Your task to perform on an android device: find photos in the google photos app Image 0: 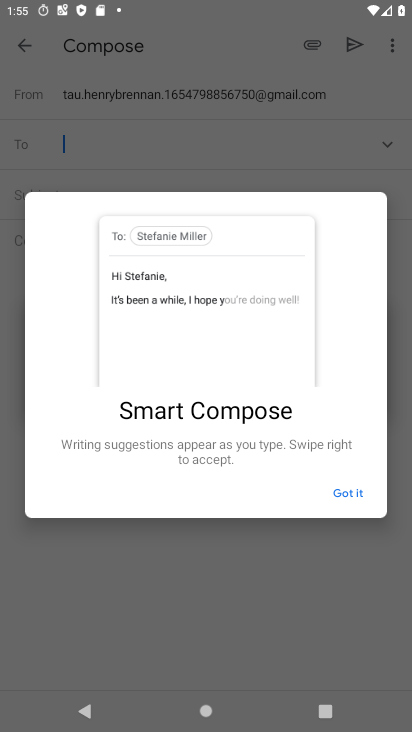
Step 0: click (346, 502)
Your task to perform on an android device: find photos in the google photos app Image 1: 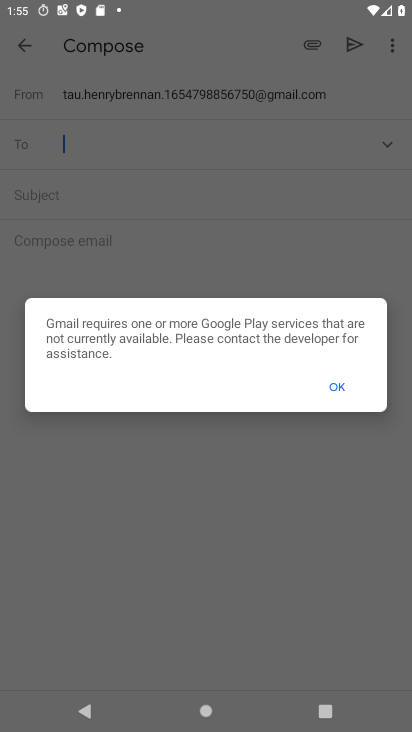
Step 1: press home button
Your task to perform on an android device: find photos in the google photos app Image 2: 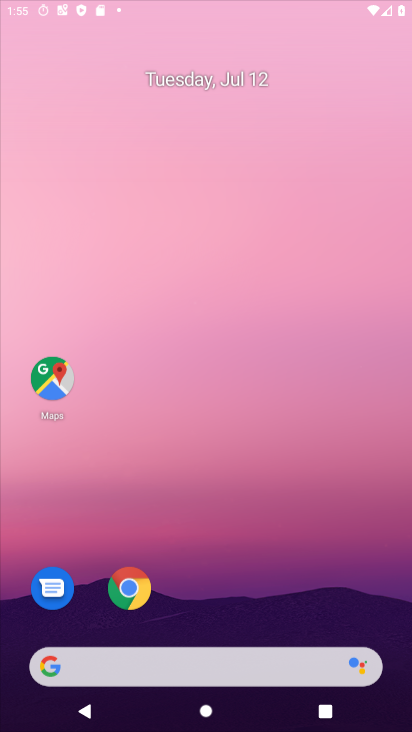
Step 2: drag from (192, 636) to (283, 5)
Your task to perform on an android device: find photos in the google photos app Image 3: 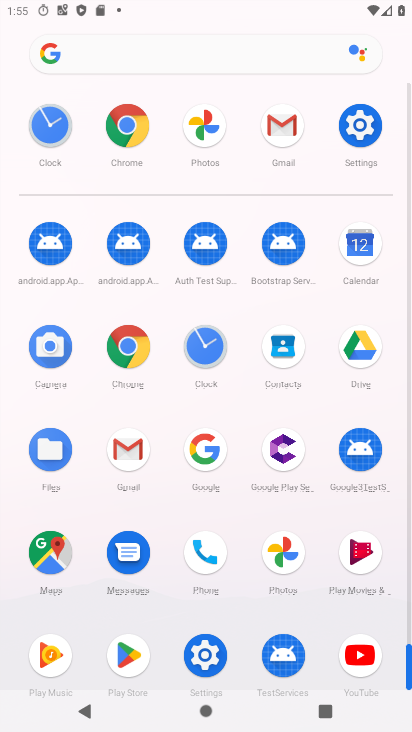
Step 3: click (278, 558)
Your task to perform on an android device: find photos in the google photos app Image 4: 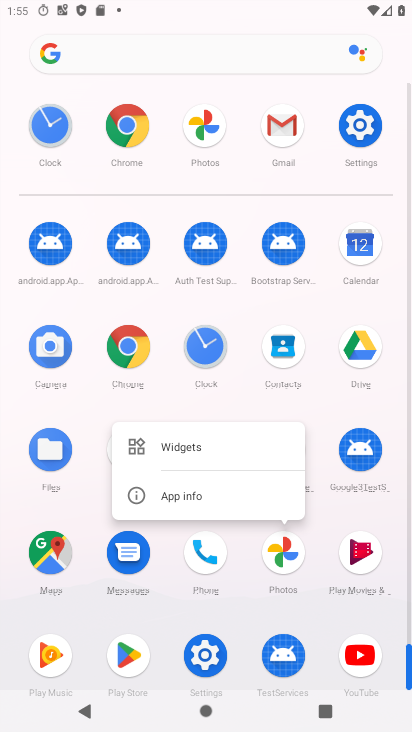
Step 4: click (181, 487)
Your task to perform on an android device: find photos in the google photos app Image 5: 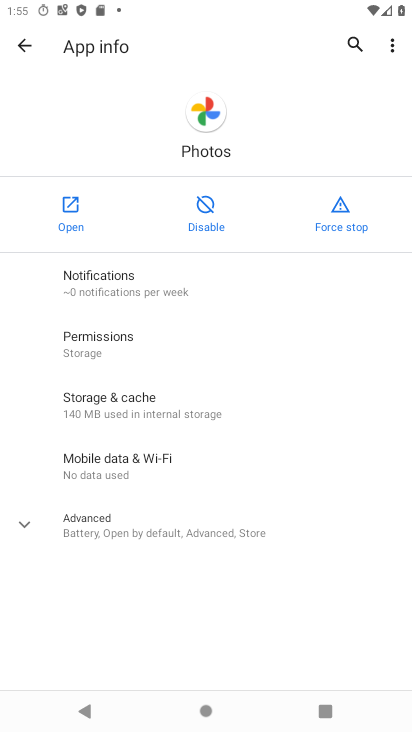
Step 5: click (67, 227)
Your task to perform on an android device: find photos in the google photos app Image 6: 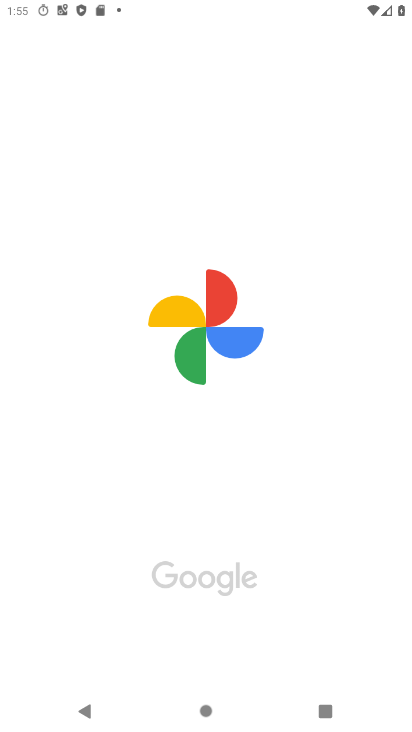
Step 6: drag from (211, 606) to (224, 266)
Your task to perform on an android device: find photos in the google photos app Image 7: 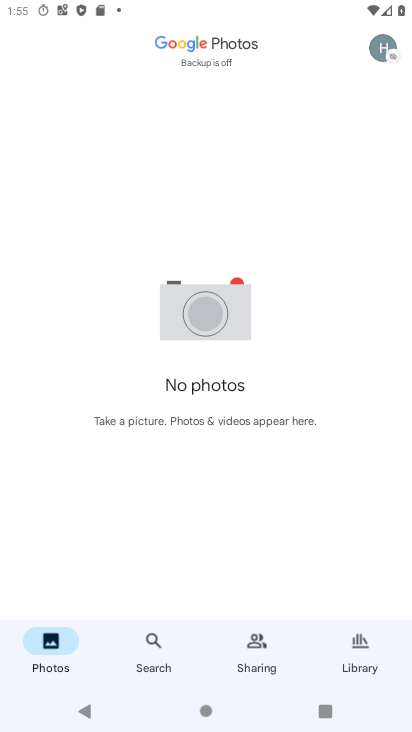
Step 7: click (154, 646)
Your task to perform on an android device: find photos in the google photos app Image 8: 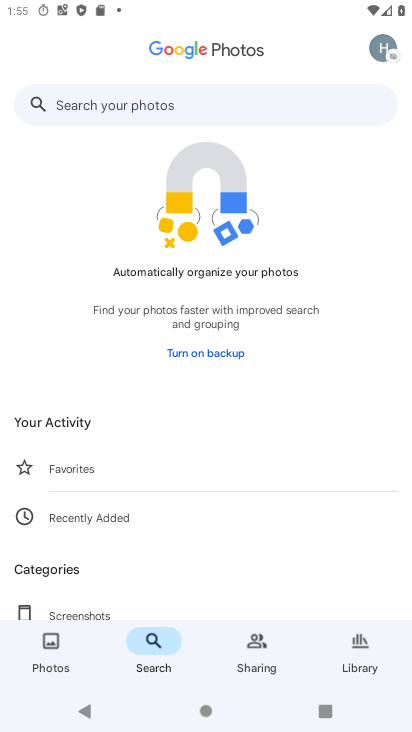
Step 8: drag from (151, 542) to (251, 237)
Your task to perform on an android device: find photos in the google photos app Image 9: 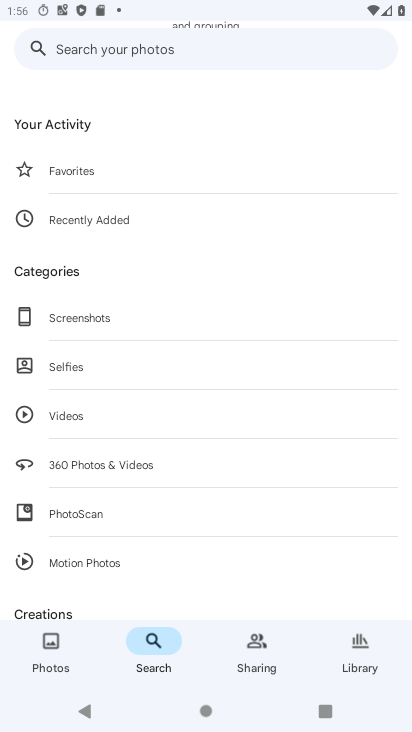
Step 9: click (29, 655)
Your task to perform on an android device: find photos in the google photos app Image 10: 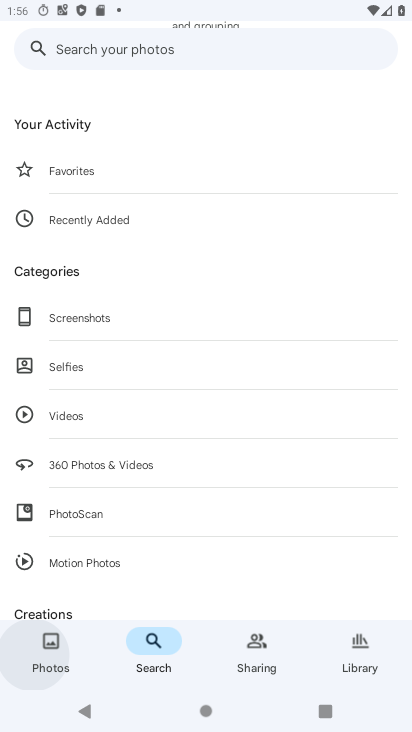
Step 10: click (54, 664)
Your task to perform on an android device: find photos in the google photos app Image 11: 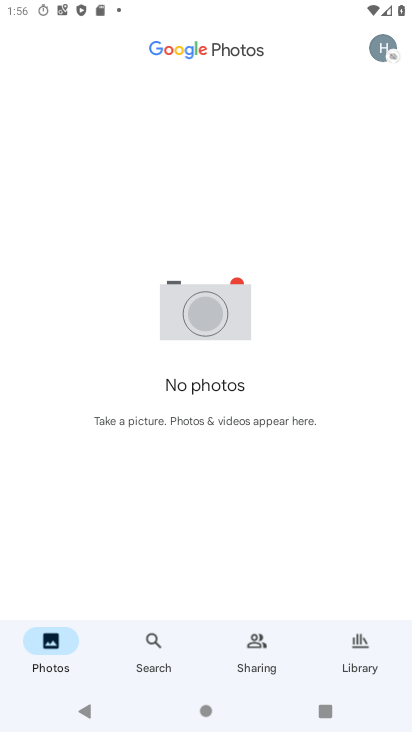
Step 11: drag from (122, 553) to (289, 214)
Your task to perform on an android device: find photos in the google photos app Image 12: 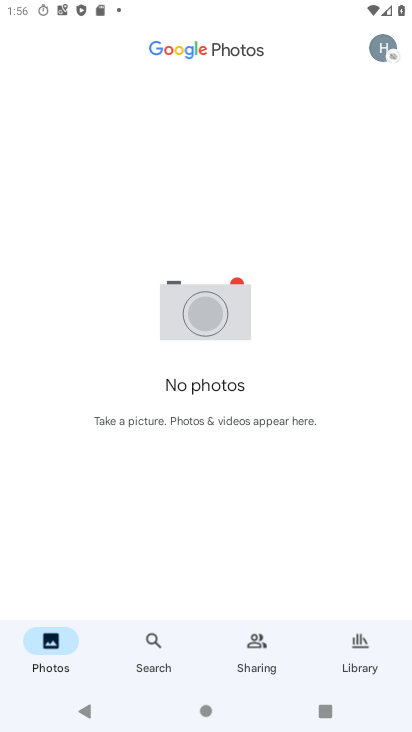
Step 12: click (225, 339)
Your task to perform on an android device: find photos in the google photos app Image 13: 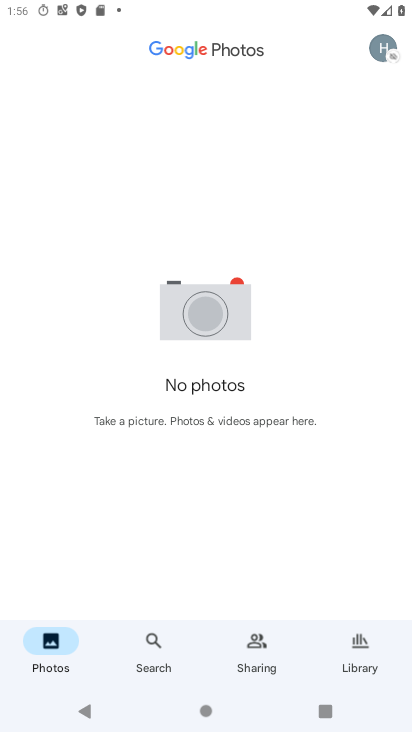
Step 13: task complete